Your task to perform on an android device: turn on translation in the chrome app Image 0: 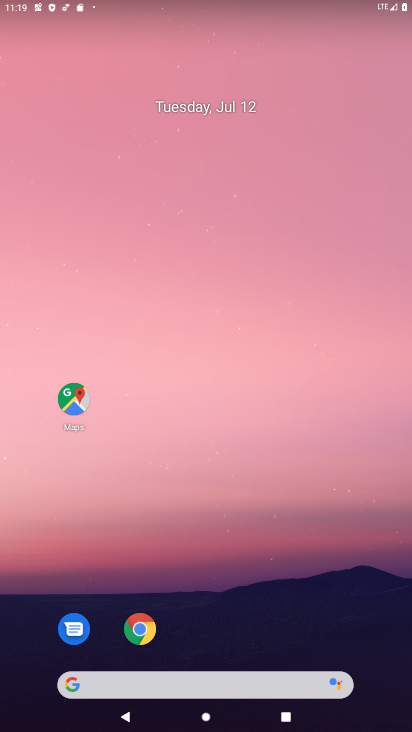
Step 0: click (137, 624)
Your task to perform on an android device: turn on translation in the chrome app Image 1: 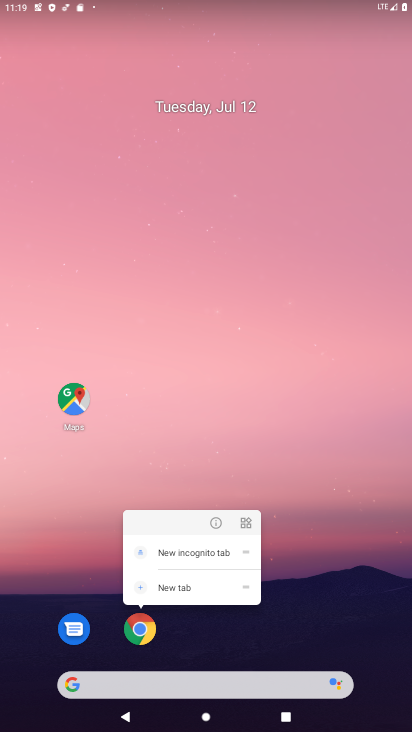
Step 1: click (138, 624)
Your task to perform on an android device: turn on translation in the chrome app Image 2: 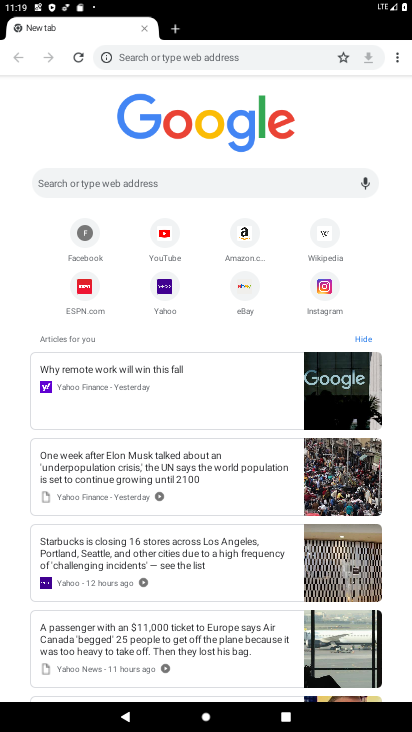
Step 2: click (393, 57)
Your task to perform on an android device: turn on translation in the chrome app Image 3: 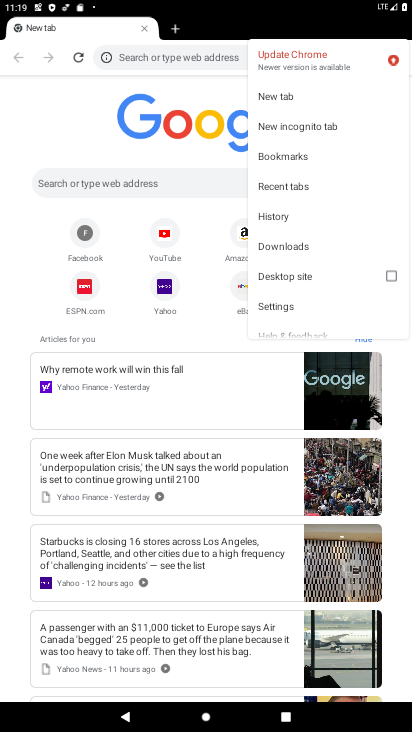
Step 3: click (298, 303)
Your task to perform on an android device: turn on translation in the chrome app Image 4: 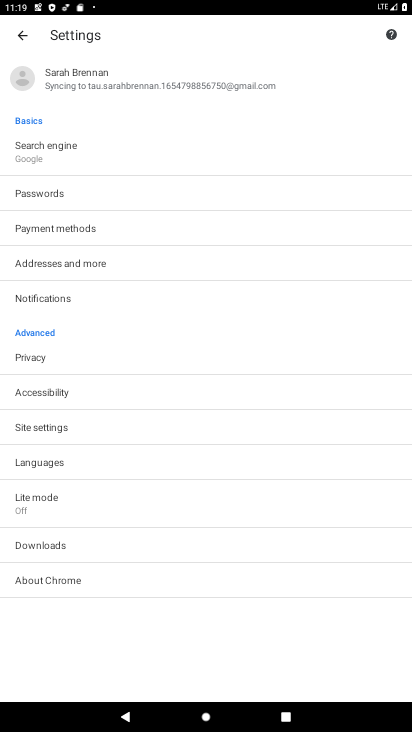
Step 4: click (70, 466)
Your task to perform on an android device: turn on translation in the chrome app Image 5: 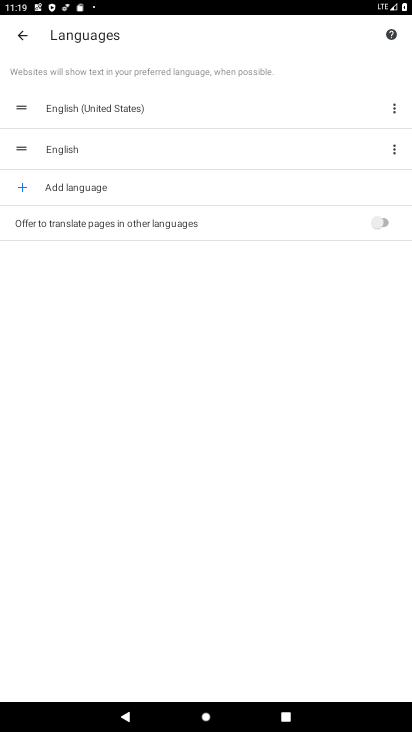
Step 5: click (385, 218)
Your task to perform on an android device: turn on translation in the chrome app Image 6: 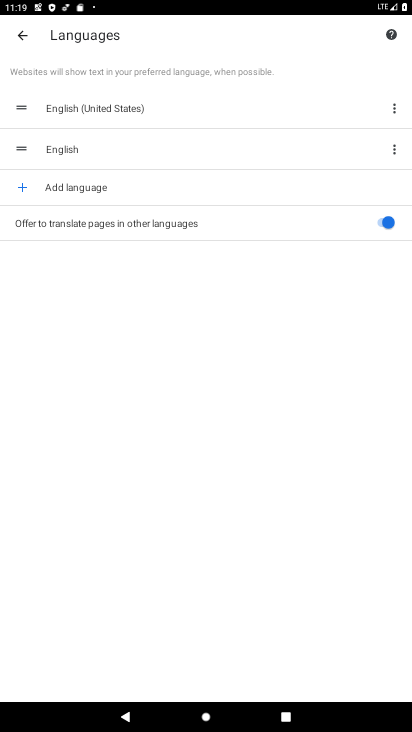
Step 6: task complete